Your task to perform on an android device: Open the Play Movies app and select the watchlist tab. Image 0: 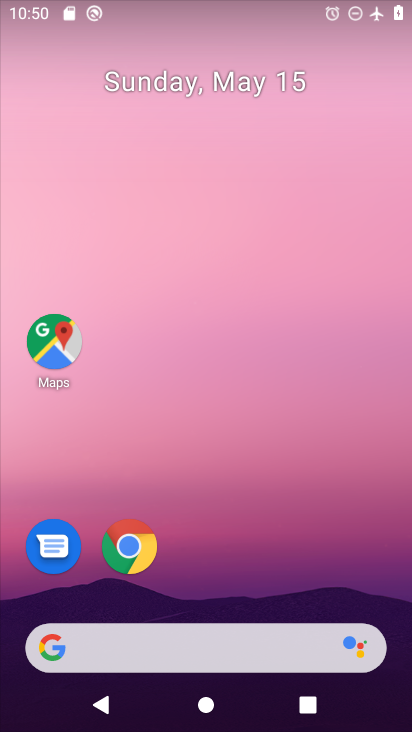
Step 0: drag from (268, 592) to (326, 104)
Your task to perform on an android device: Open the Play Movies app and select the watchlist tab. Image 1: 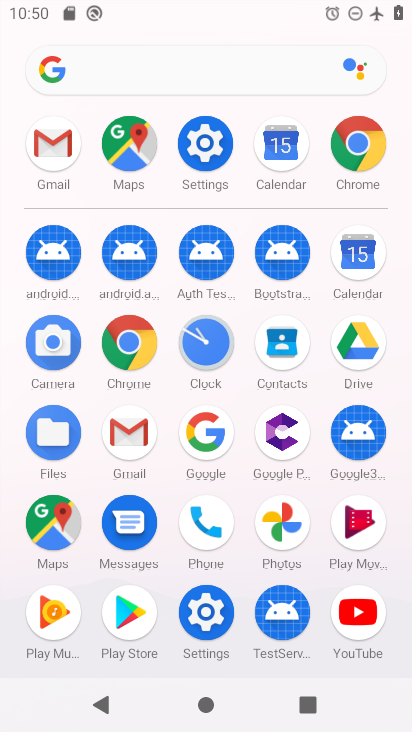
Step 1: click (360, 525)
Your task to perform on an android device: Open the Play Movies app and select the watchlist tab. Image 2: 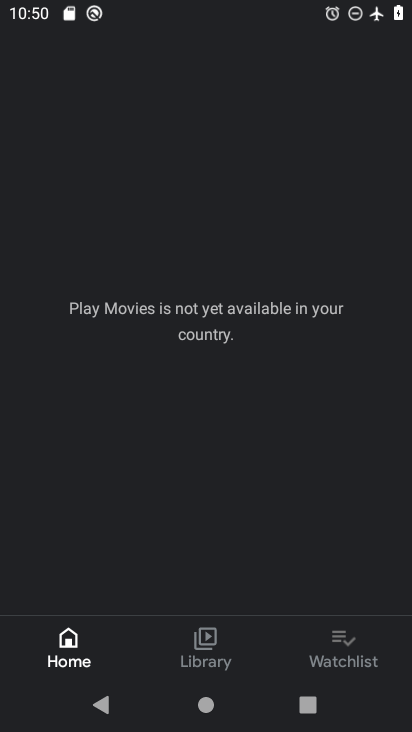
Step 2: click (336, 634)
Your task to perform on an android device: Open the Play Movies app and select the watchlist tab. Image 3: 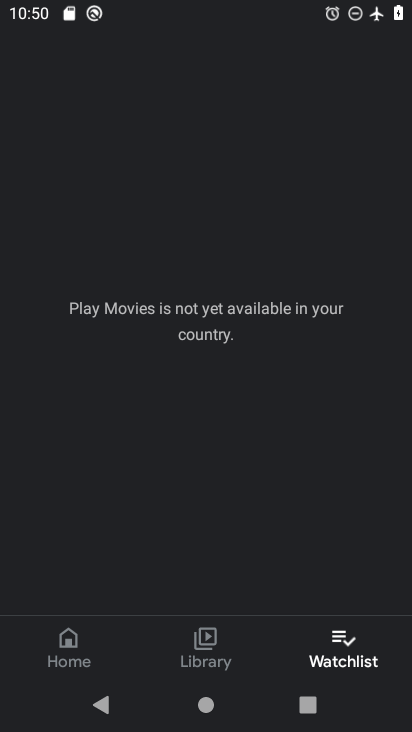
Step 3: task complete